Your task to perform on an android device: turn notification dots on Image 0: 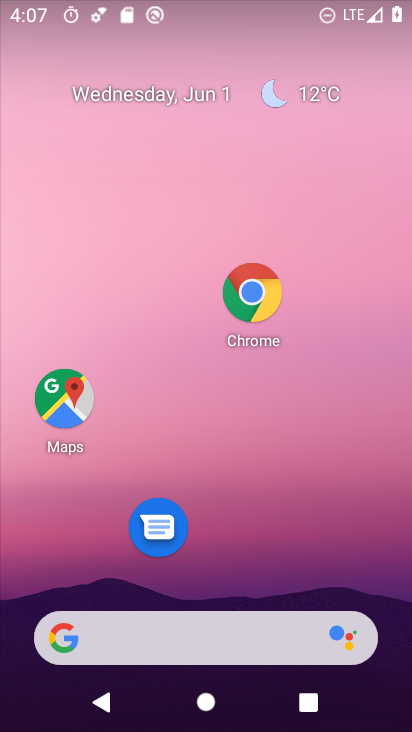
Step 0: drag from (206, 576) to (207, 139)
Your task to perform on an android device: turn notification dots on Image 1: 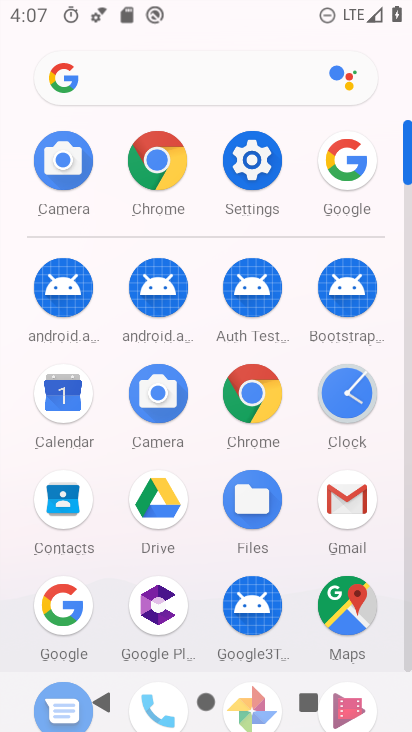
Step 1: click (243, 188)
Your task to perform on an android device: turn notification dots on Image 2: 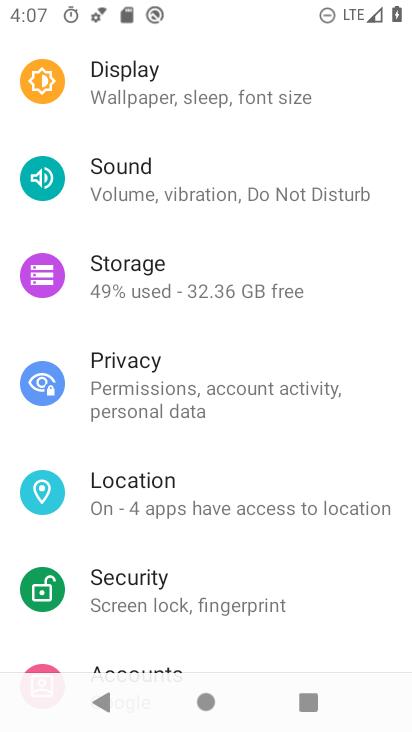
Step 2: drag from (189, 253) to (81, 695)
Your task to perform on an android device: turn notification dots on Image 3: 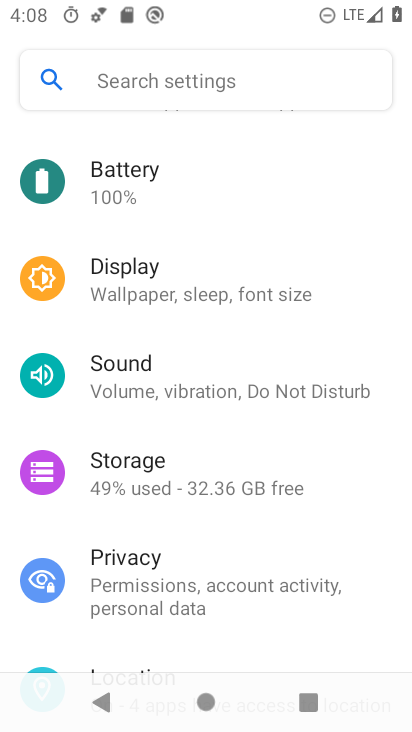
Step 3: drag from (142, 418) to (124, 562)
Your task to perform on an android device: turn notification dots on Image 4: 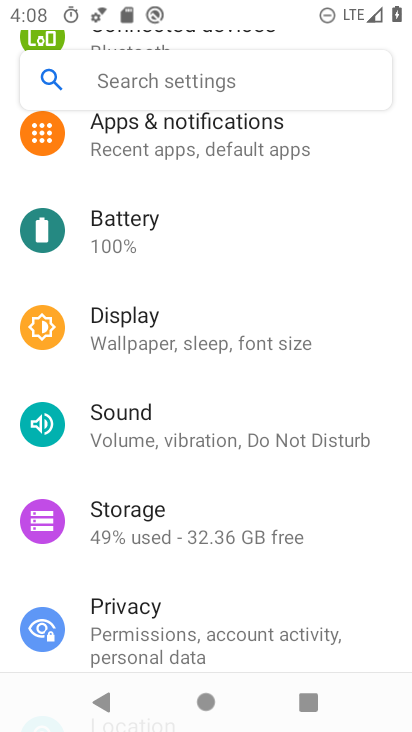
Step 4: click (112, 724)
Your task to perform on an android device: turn notification dots on Image 5: 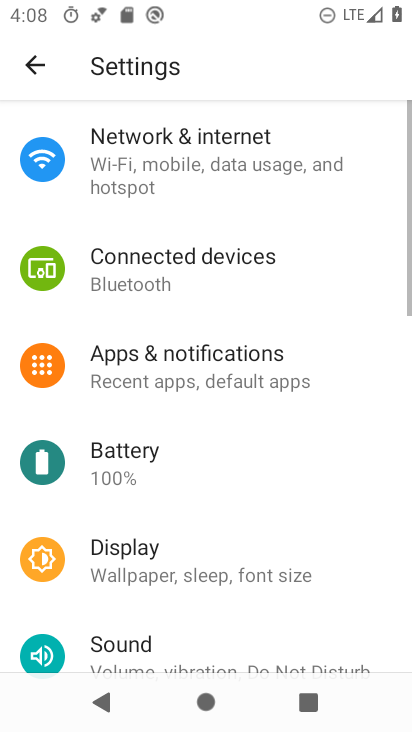
Step 5: drag from (193, 514) to (193, 670)
Your task to perform on an android device: turn notification dots on Image 6: 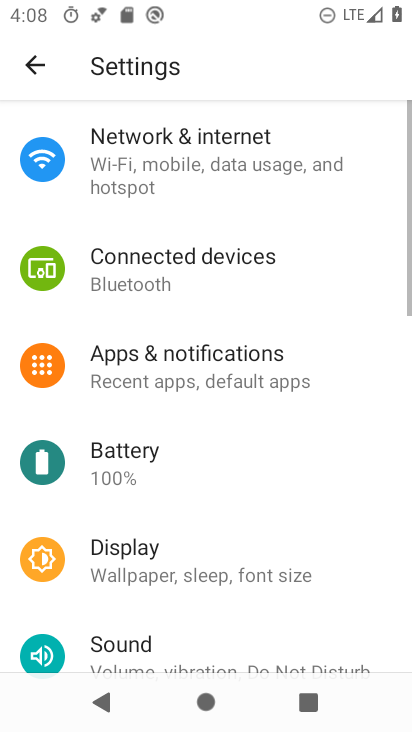
Step 6: drag from (219, 455) to (219, 549)
Your task to perform on an android device: turn notification dots on Image 7: 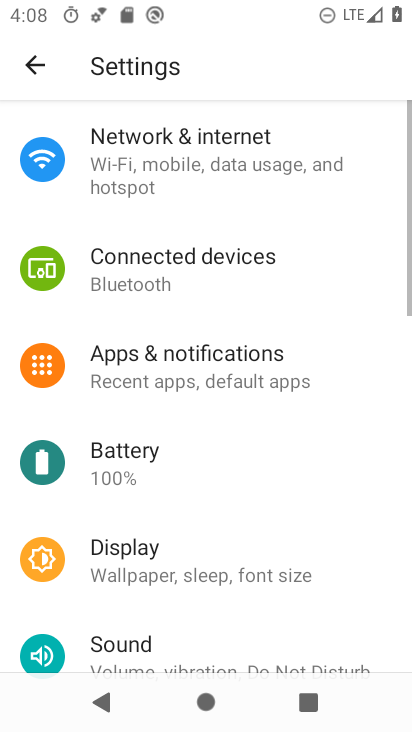
Step 7: drag from (180, 578) to (176, 615)
Your task to perform on an android device: turn notification dots on Image 8: 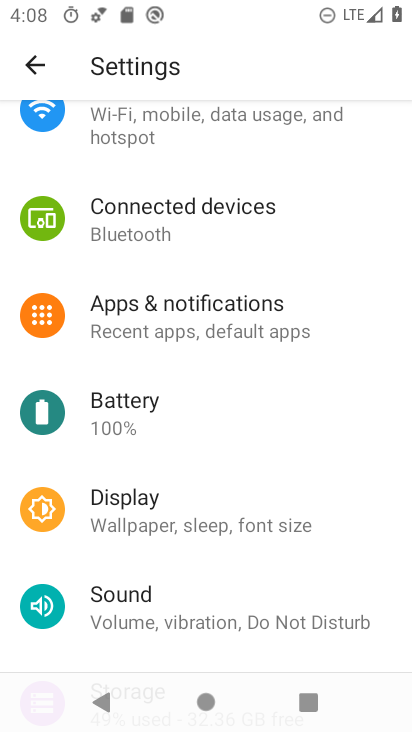
Step 8: click (110, 331)
Your task to perform on an android device: turn notification dots on Image 9: 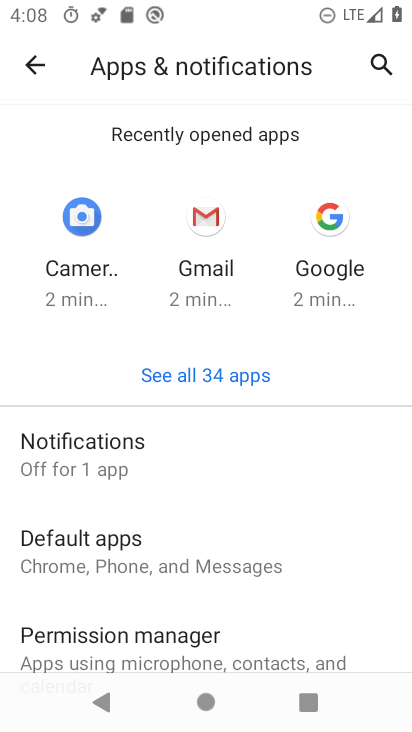
Step 9: click (172, 457)
Your task to perform on an android device: turn notification dots on Image 10: 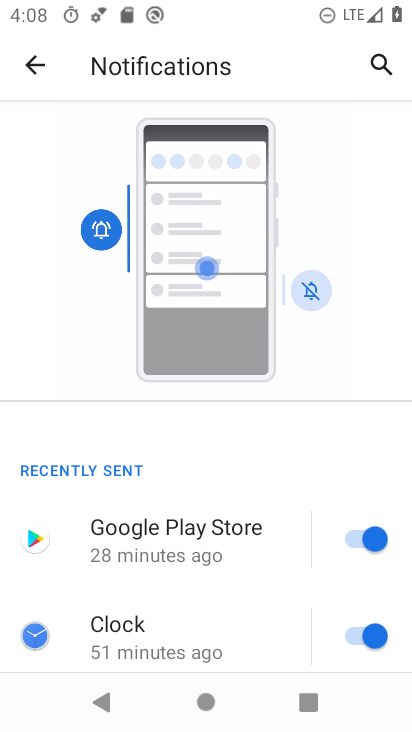
Step 10: drag from (155, 557) to (237, 137)
Your task to perform on an android device: turn notification dots on Image 11: 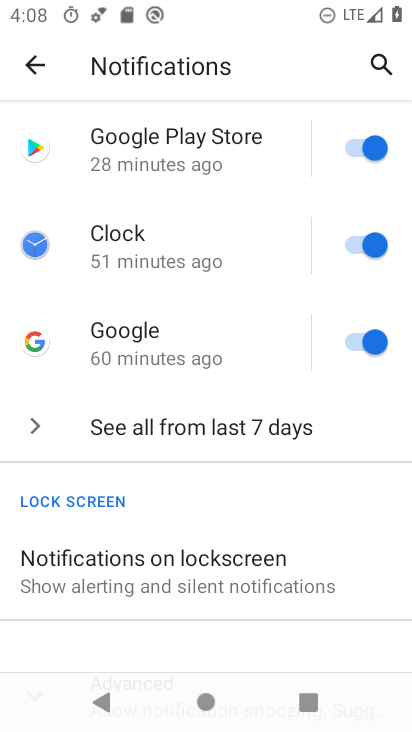
Step 11: drag from (207, 536) to (277, 198)
Your task to perform on an android device: turn notification dots on Image 12: 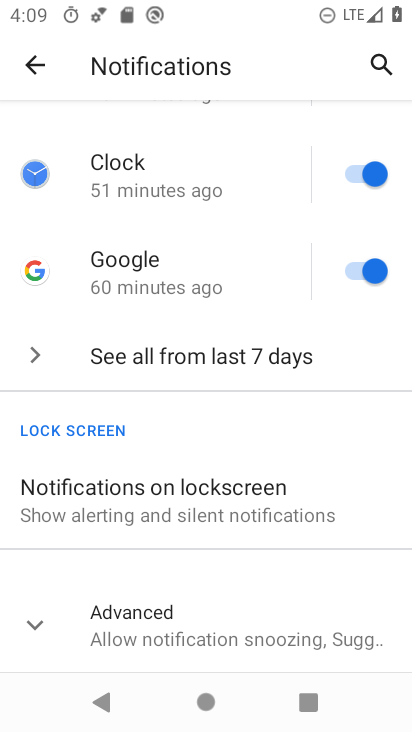
Step 12: click (162, 621)
Your task to perform on an android device: turn notification dots on Image 13: 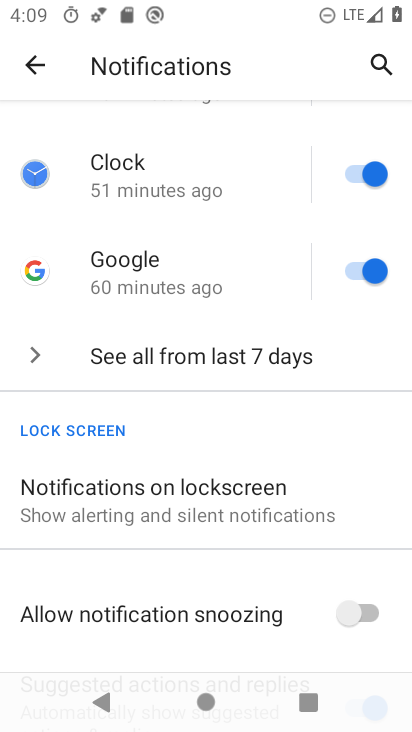
Step 13: drag from (159, 616) to (189, 146)
Your task to perform on an android device: turn notification dots on Image 14: 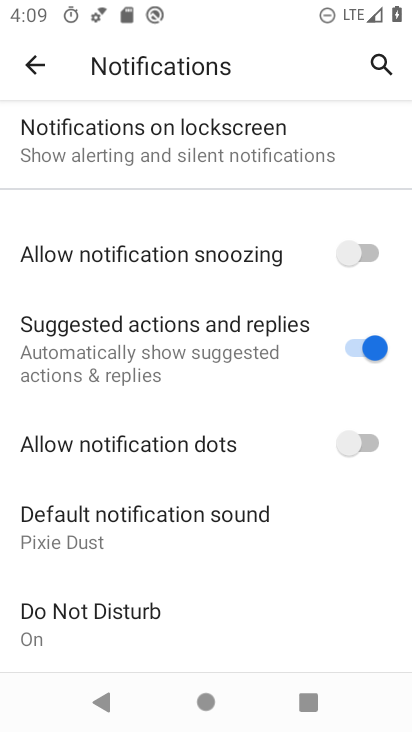
Step 14: drag from (126, 560) to (200, 213)
Your task to perform on an android device: turn notification dots on Image 15: 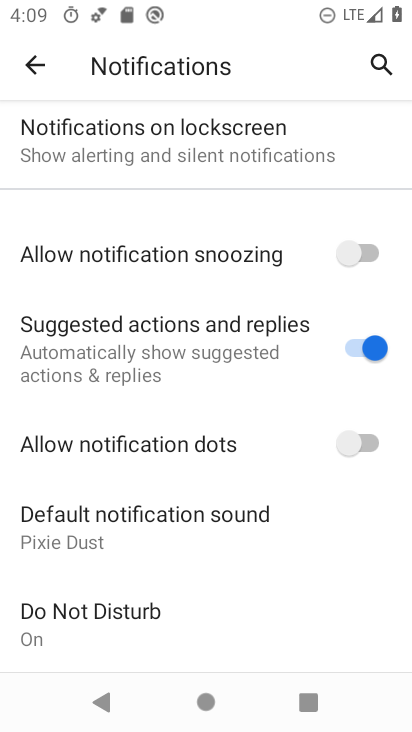
Step 15: drag from (243, 556) to (262, 109)
Your task to perform on an android device: turn notification dots on Image 16: 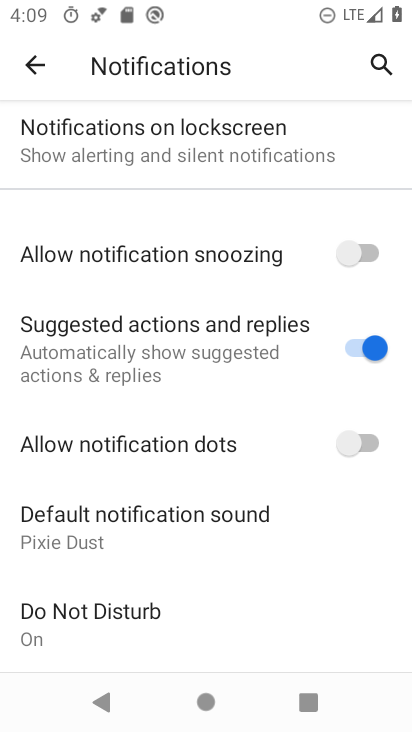
Step 16: click (270, 454)
Your task to perform on an android device: turn notification dots on Image 17: 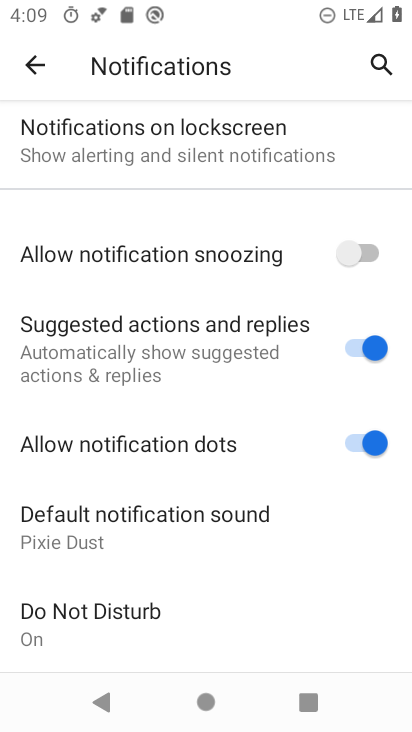
Step 17: task complete